Your task to perform on an android device: open chrome privacy settings Image 0: 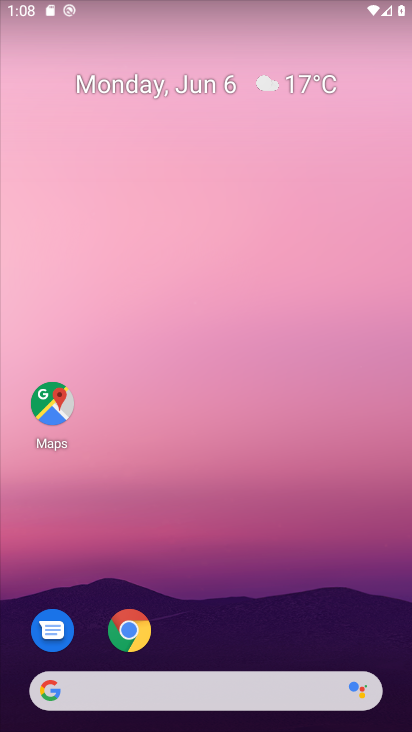
Step 0: click (135, 638)
Your task to perform on an android device: open chrome privacy settings Image 1: 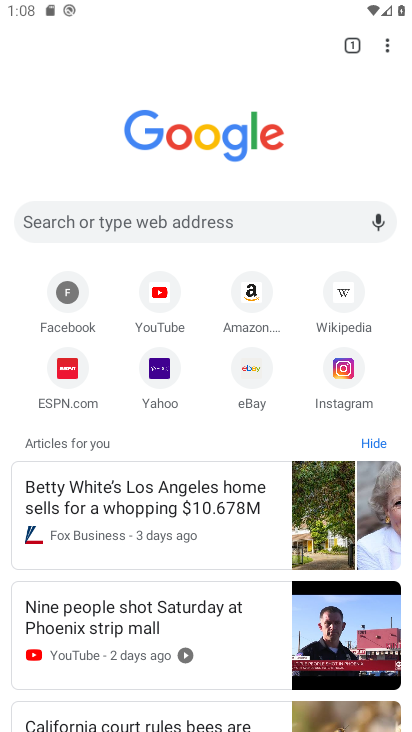
Step 1: click (389, 49)
Your task to perform on an android device: open chrome privacy settings Image 2: 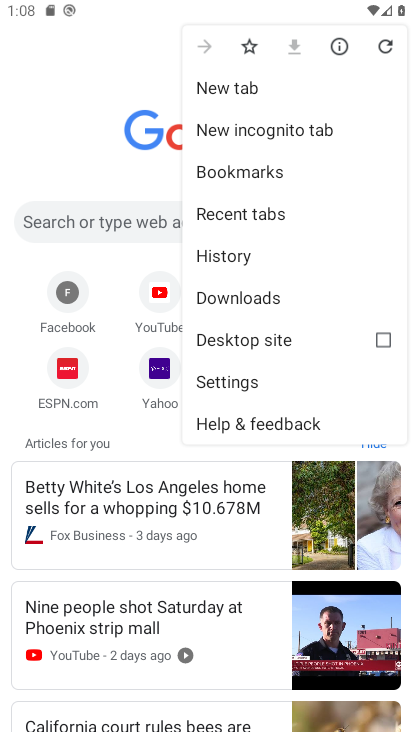
Step 2: click (221, 378)
Your task to perform on an android device: open chrome privacy settings Image 3: 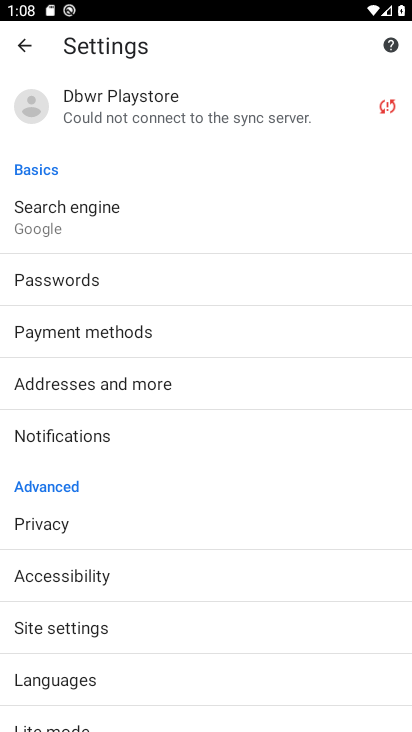
Step 3: click (57, 528)
Your task to perform on an android device: open chrome privacy settings Image 4: 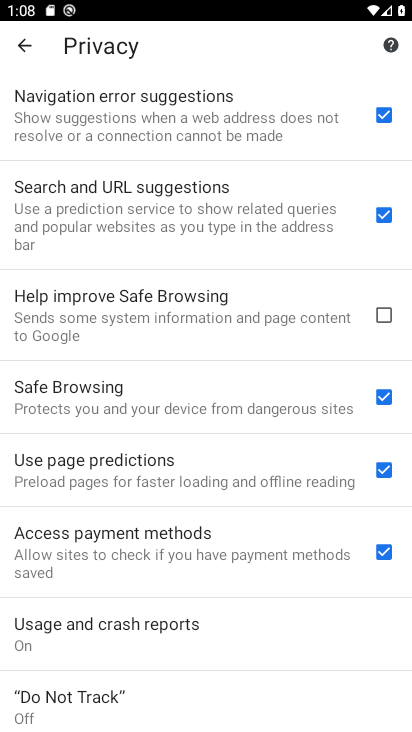
Step 4: task complete